Your task to perform on an android device: open app "Calculator" Image 0: 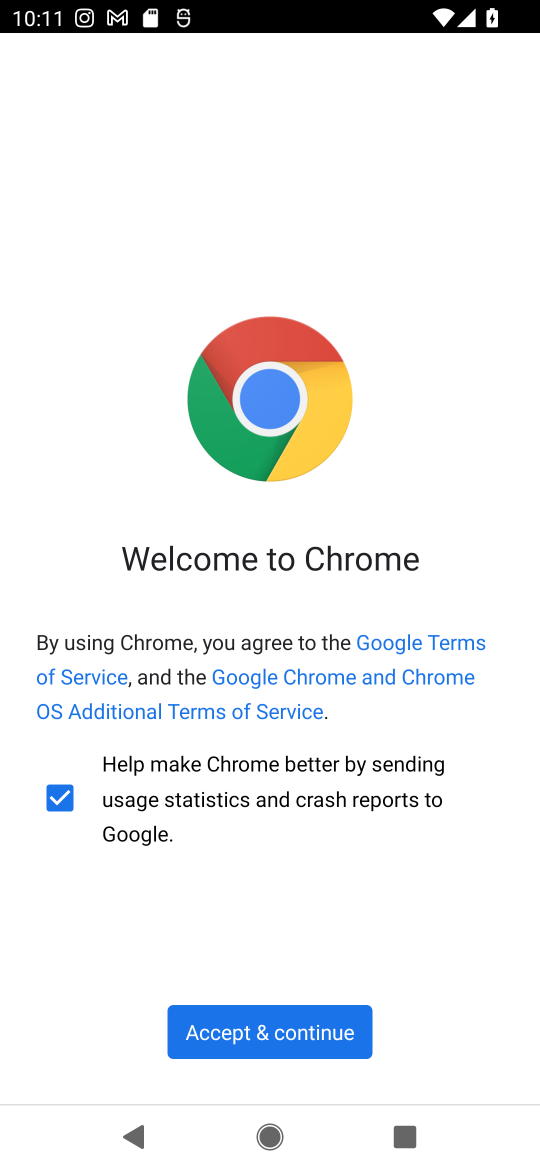
Step 0: press home button
Your task to perform on an android device: open app "Calculator" Image 1: 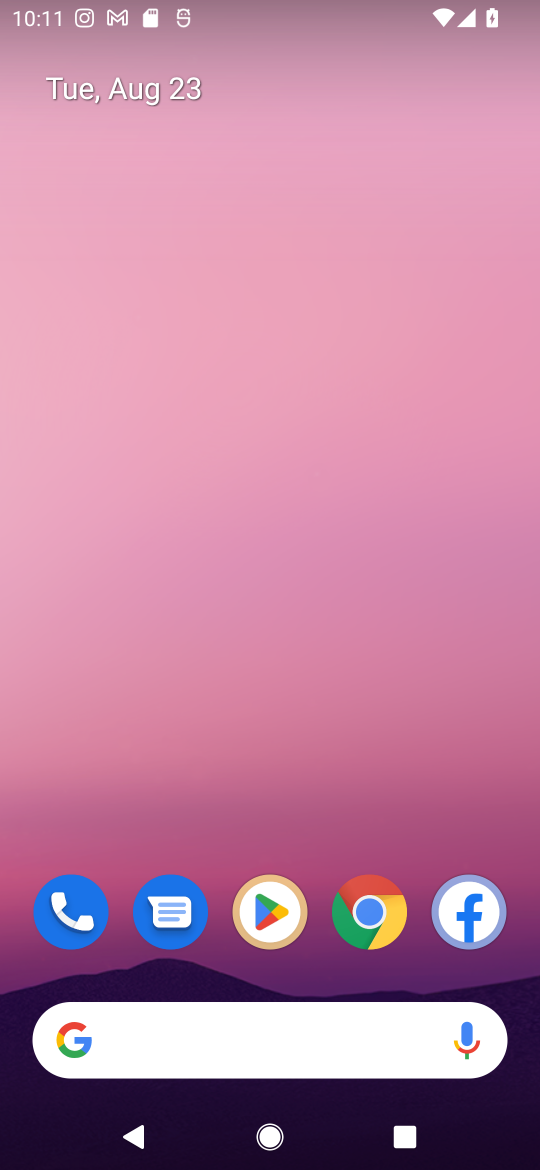
Step 1: click (266, 918)
Your task to perform on an android device: open app "Calculator" Image 2: 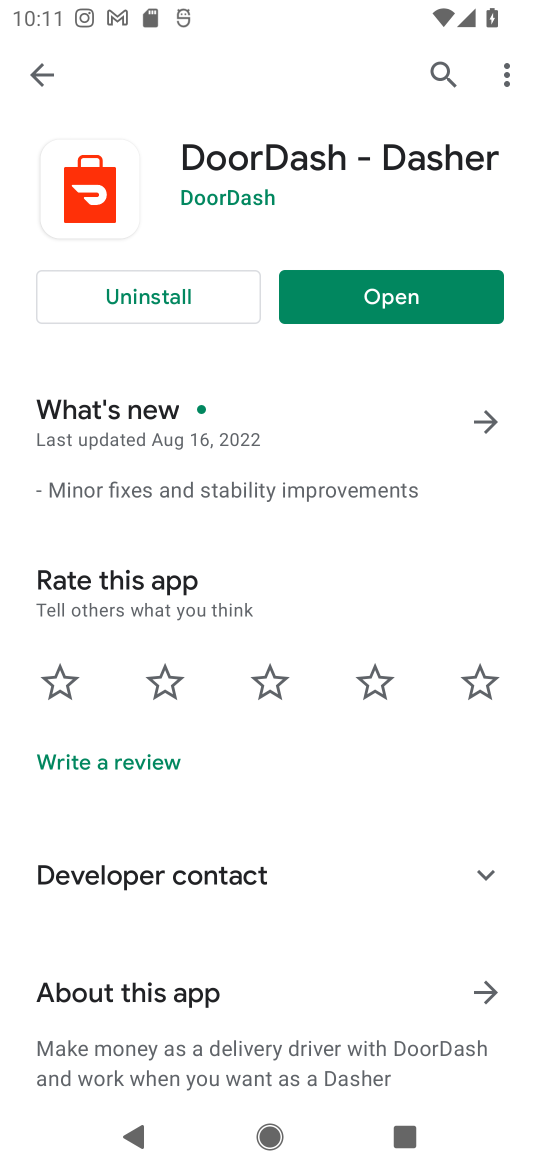
Step 2: click (441, 69)
Your task to perform on an android device: open app "Calculator" Image 3: 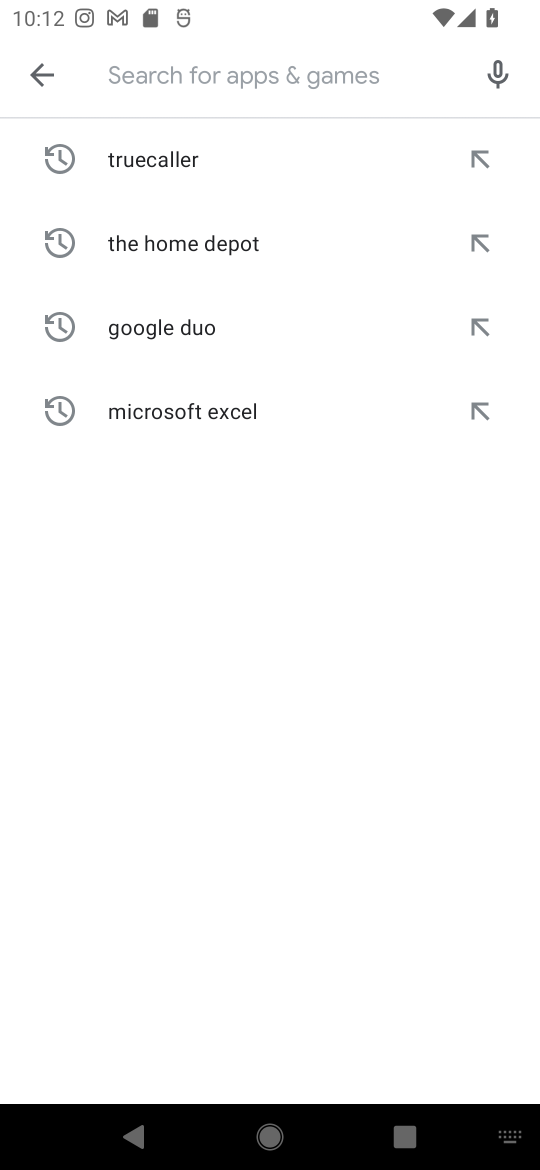
Step 3: type "Calculator"
Your task to perform on an android device: open app "Calculator" Image 4: 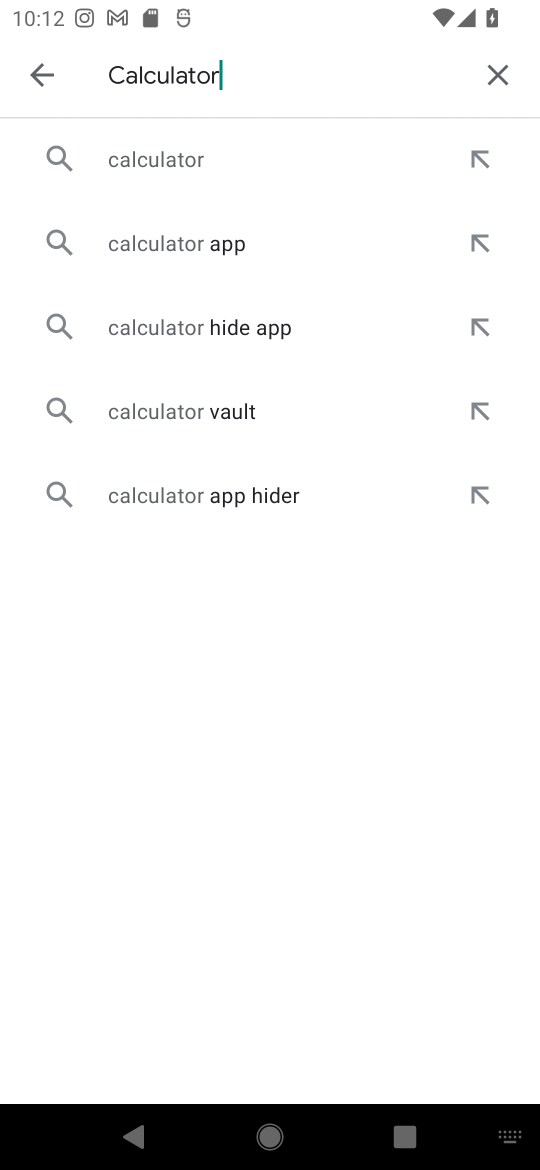
Step 4: click (158, 165)
Your task to perform on an android device: open app "Calculator" Image 5: 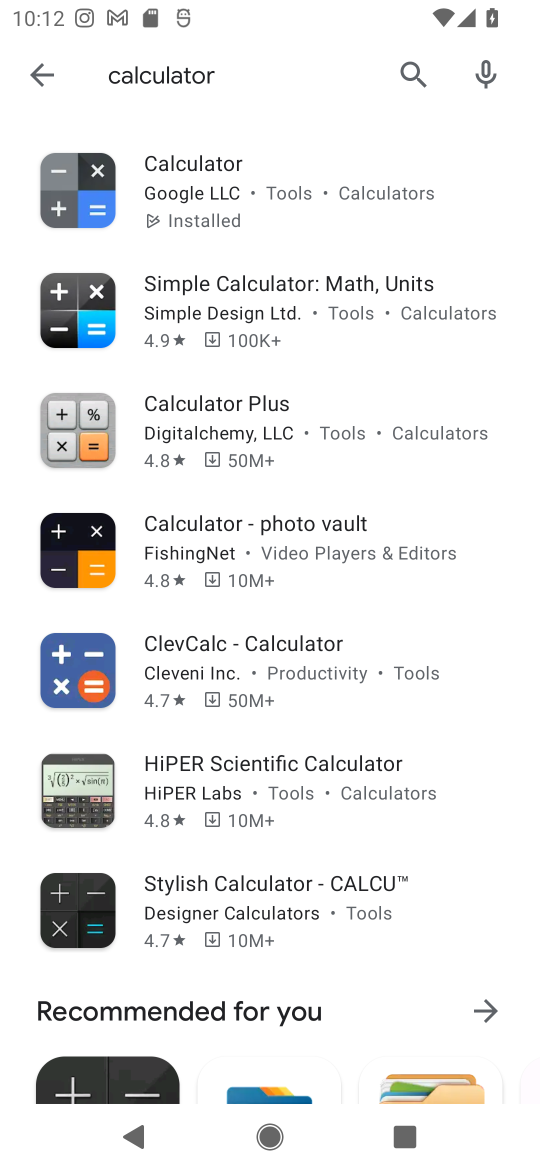
Step 5: click (146, 175)
Your task to perform on an android device: open app "Calculator" Image 6: 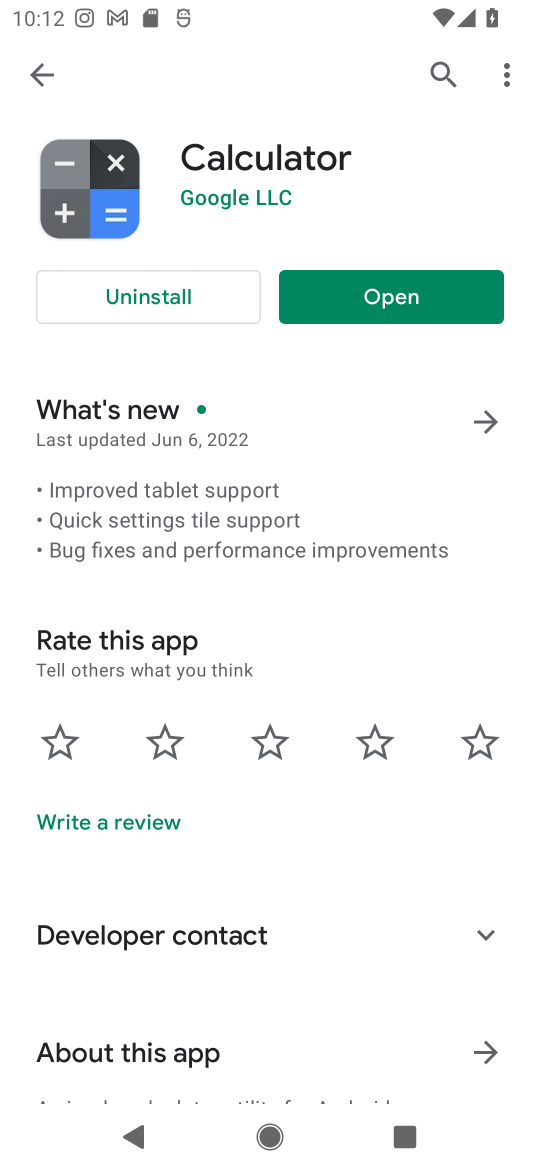
Step 6: click (400, 294)
Your task to perform on an android device: open app "Calculator" Image 7: 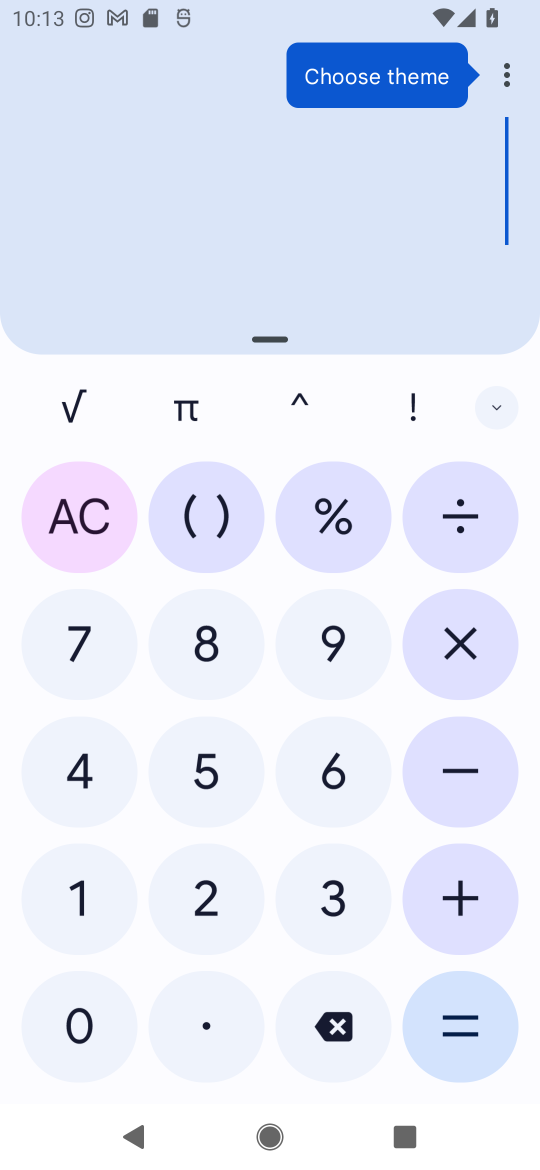
Step 7: task complete